Your task to perform on an android device: turn on improve location accuracy Image 0: 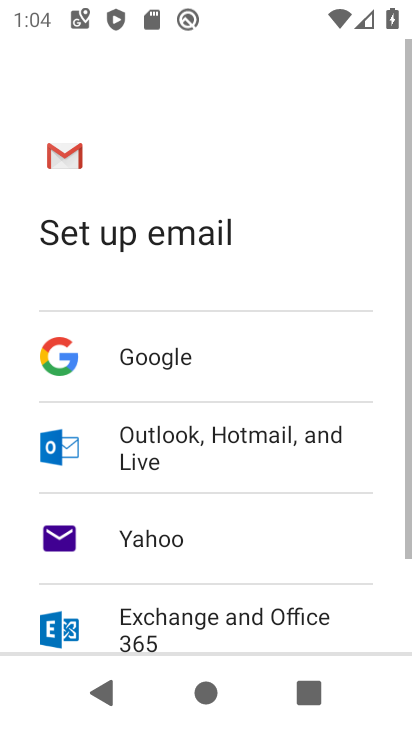
Step 0: press home button
Your task to perform on an android device: turn on improve location accuracy Image 1: 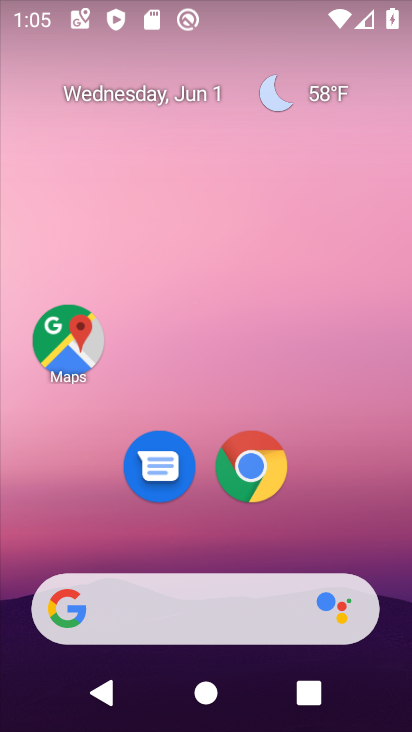
Step 1: drag from (370, 511) to (267, 211)
Your task to perform on an android device: turn on improve location accuracy Image 2: 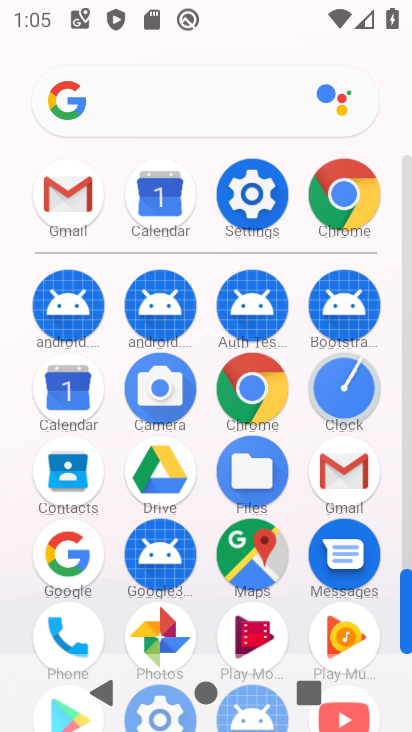
Step 2: click (257, 195)
Your task to perform on an android device: turn on improve location accuracy Image 3: 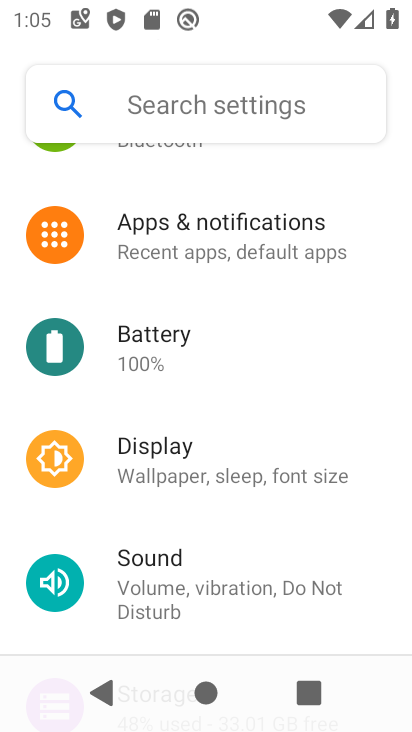
Step 3: drag from (268, 572) to (189, 171)
Your task to perform on an android device: turn on improve location accuracy Image 4: 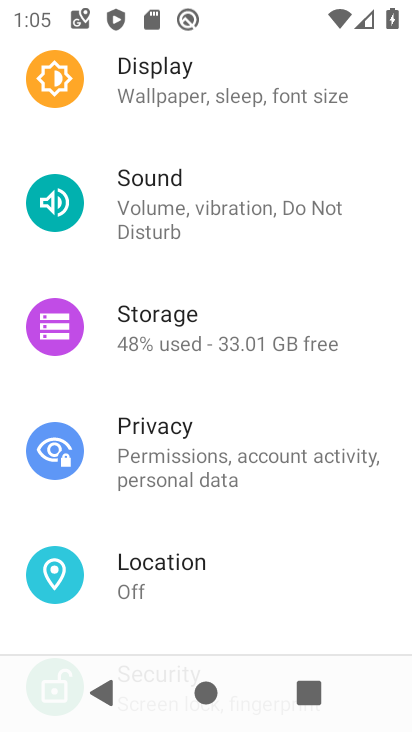
Step 4: click (196, 559)
Your task to perform on an android device: turn on improve location accuracy Image 5: 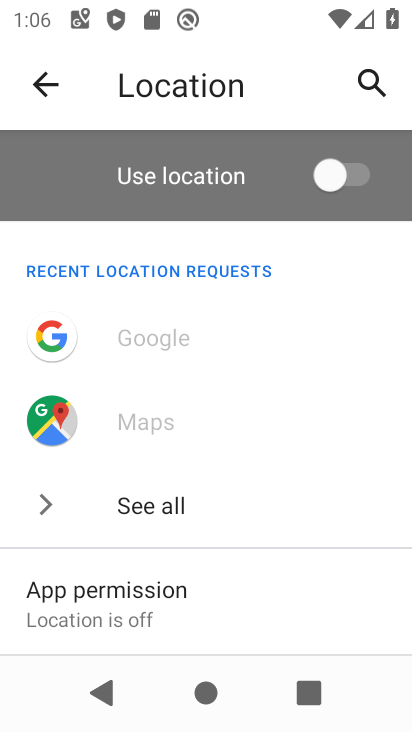
Step 5: drag from (225, 611) to (194, 215)
Your task to perform on an android device: turn on improve location accuracy Image 6: 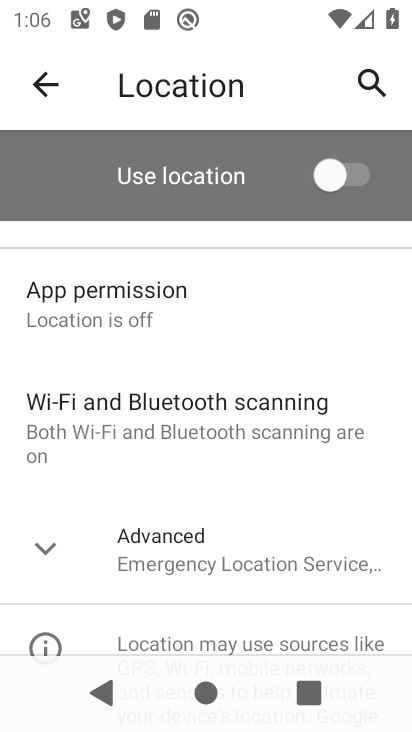
Step 6: click (280, 562)
Your task to perform on an android device: turn on improve location accuracy Image 7: 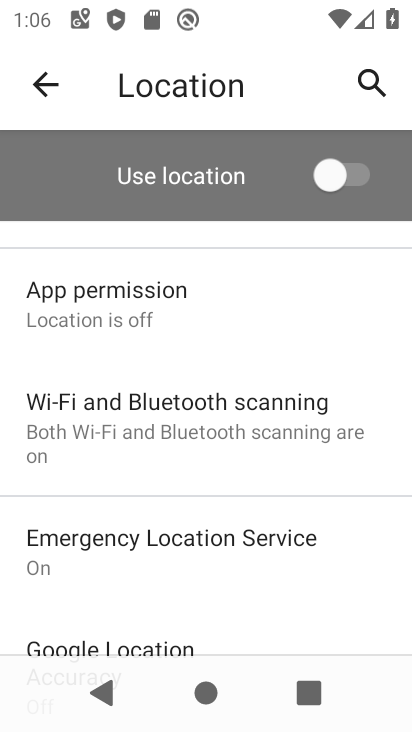
Step 7: drag from (281, 608) to (232, 262)
Your task to perform on an android device: turn on improve location accuracy Image 8: 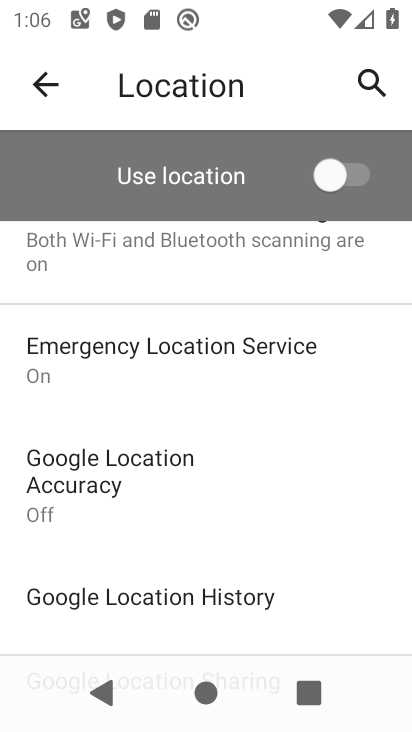
Step 8: click (203, 489)
Your task to perform on an android device: turn on improve location accuracy Image 9: 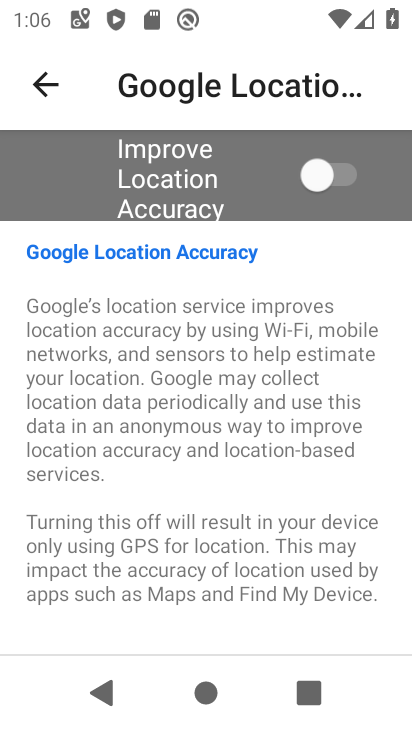
Step 9: click (348, 178)
Your task to perform on an android device: turn on improve location accuracy Image 10: 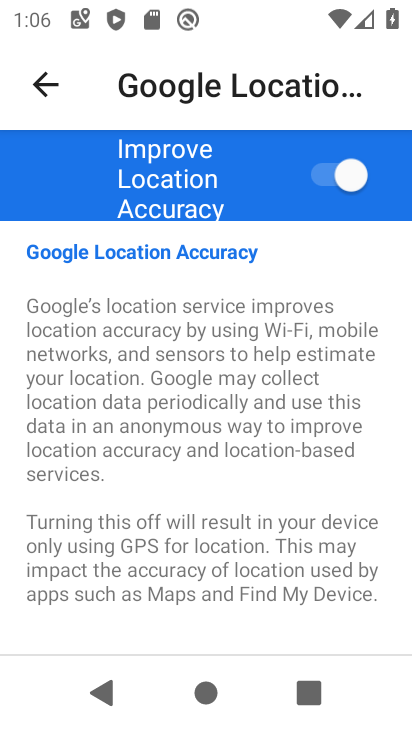
Step 10: task complete